Your task to perform on an android device: toggle improve location accuracy Image 0: 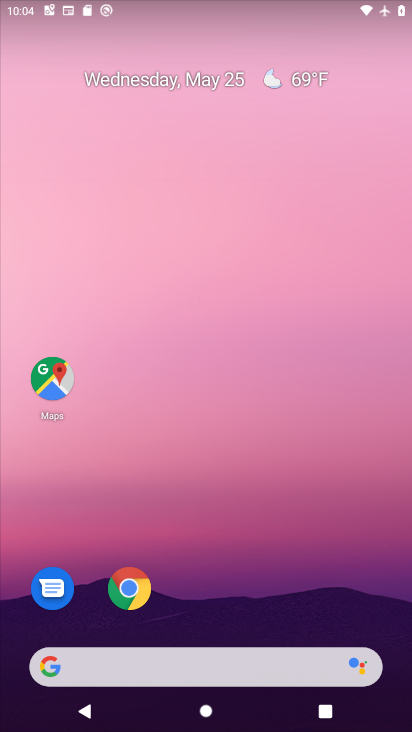
Step 0: drag from (369, 609) to (359, 241)
Your task to perform on an android device: toggle improve location accuracy Image 1: 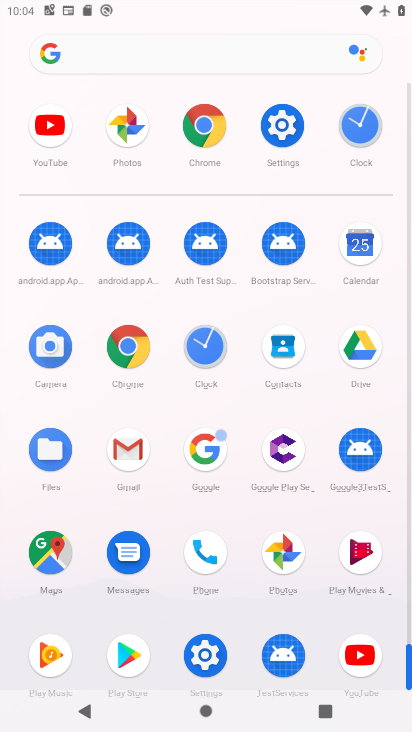
Step 1: click (206, 654)
Your task to perform on an android device: toggle improve location accuracy Image 2: 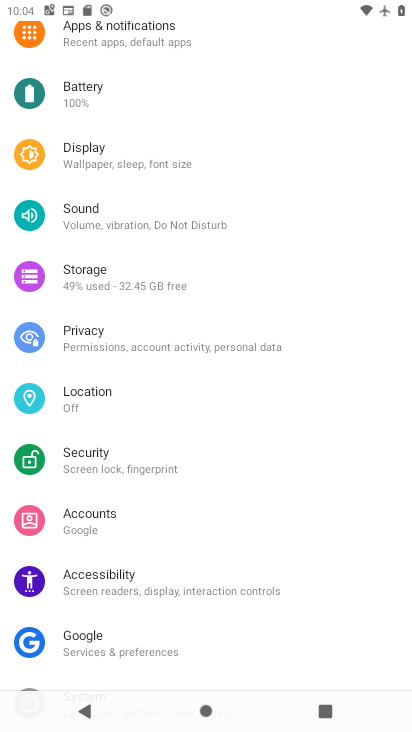
Step 2: drag from (305, 657) to (344, 553)
Your task to perform on an android device: toggle improve location accuracy Image 3: 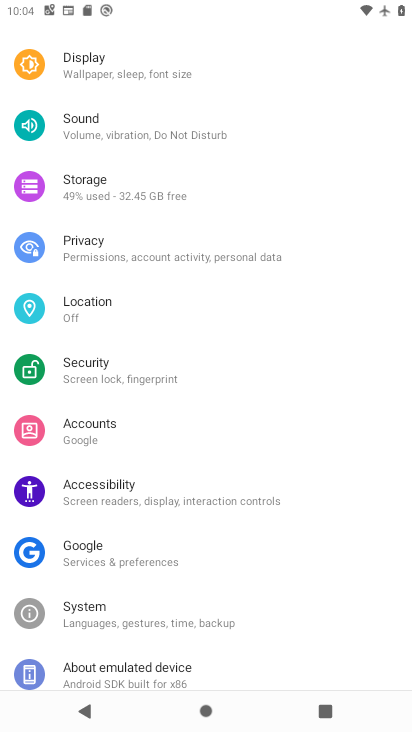
Step 3: drag from (337, 643) to (337, 514)
Your task to perform on an android device: toggle improve location accuracy Image 4: 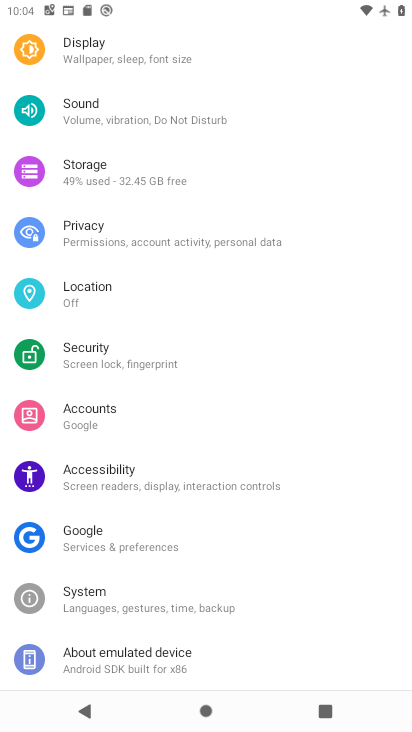
Step 4: drag from (333, 517) to (343, 476)
Your task to perform on an android device: toggle improve location accuracy Image 5: 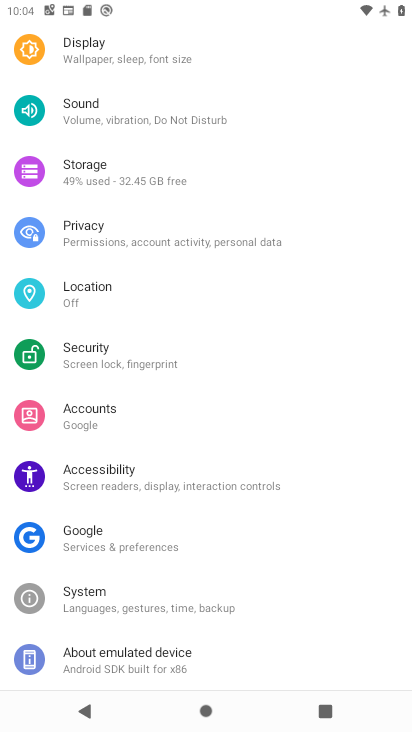
Step 5: drag from (349, 362) to (354, 454)
Your task to perform on an android device: toggle improve location accuracy Image 6: 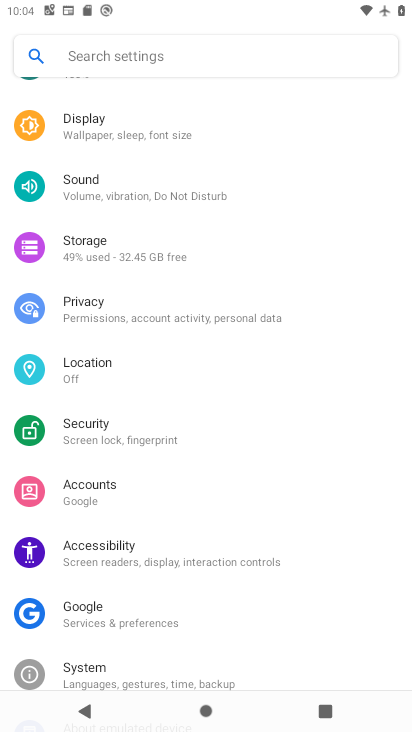
Step 6: drag from (320, 384) to (325, 495)
Your task to perform on an android device: toggle improve location accuracy Image 7: 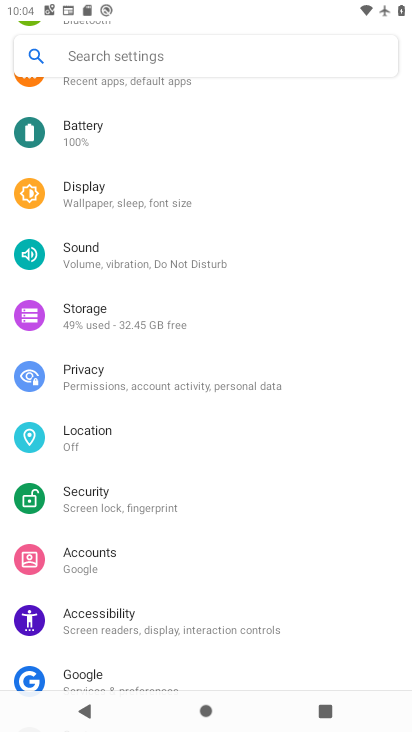
Step 7: drag from (315, 385) to (323, 531)
Your task to perform on an android device: toggle improve location accuracy Image 8: 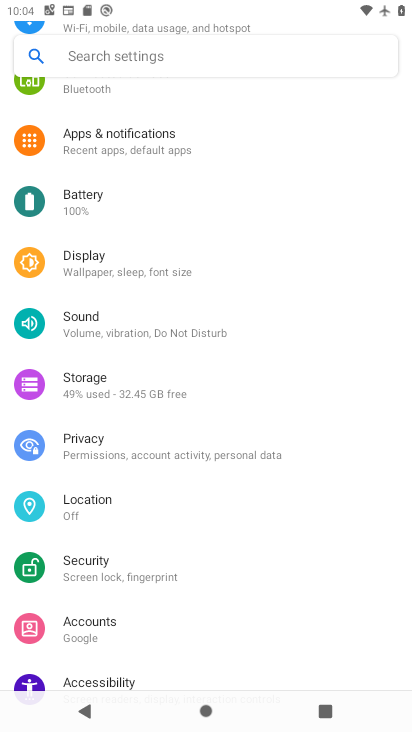
Step 8: drag from (310, 364) to (296, 530)
Your task to perform on an android device: toggle improve location accuracy Image 9: 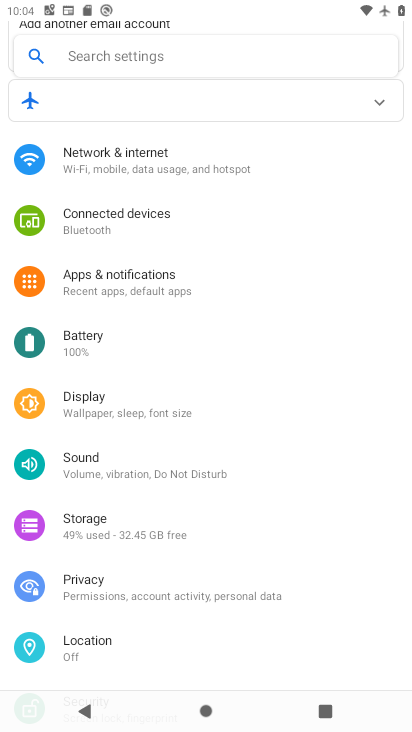
Step 9: click (190, 644)
Your task to perform on an android device: toggle improve location accuracy Image 10: 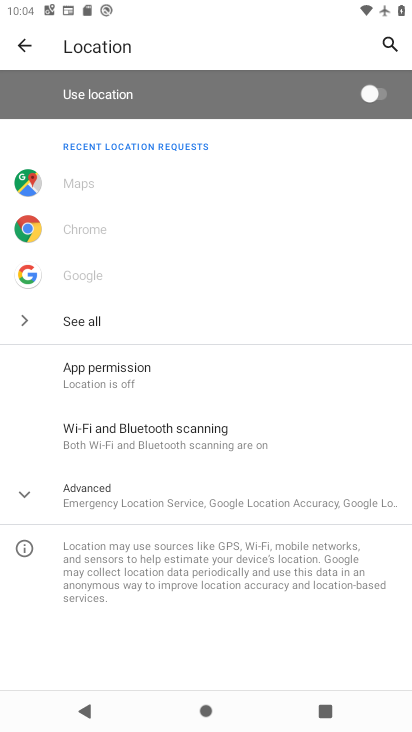
Step 10: click (239, 501)
Your task to perform on an android device: toggle improve location accuracy Image 11: 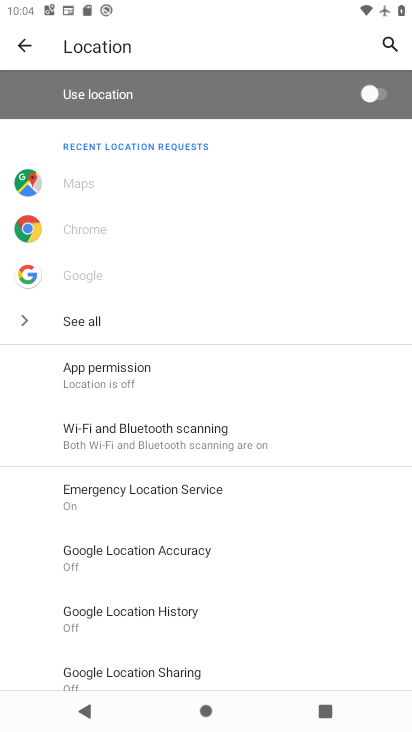
Step 11: drag from (282, 577) to (295, 443)
Your task to perform on an android device: toggle improve location accuracy Image 12: 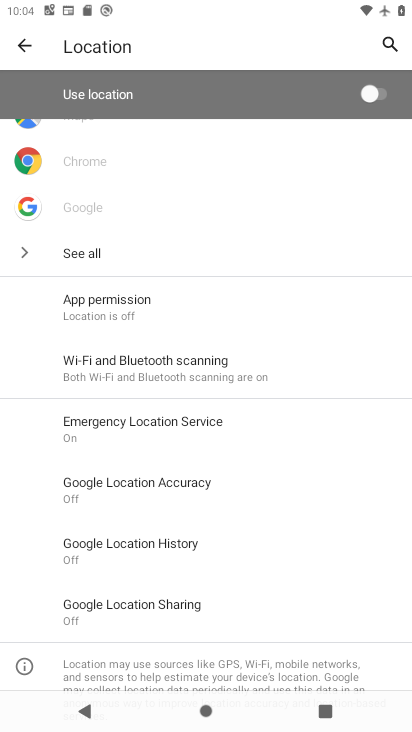
Step 12: click (178, 477)
Your task to perform on an android device: toggle improve location accuracy Image 13: 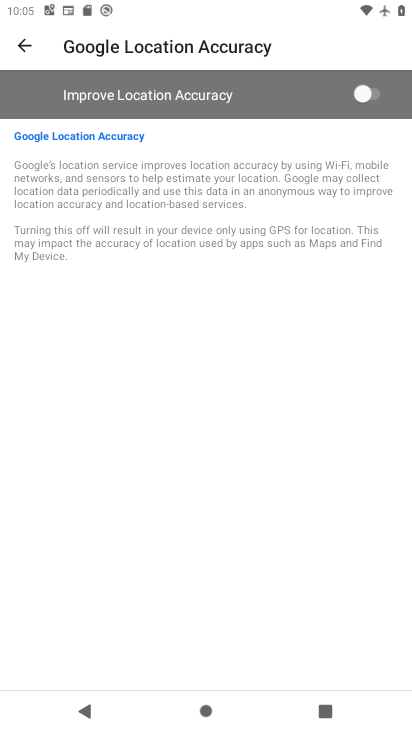
Step 13: click (364, 89)
Your task to perform on an android device: toggle improve location accuracy Image 14: 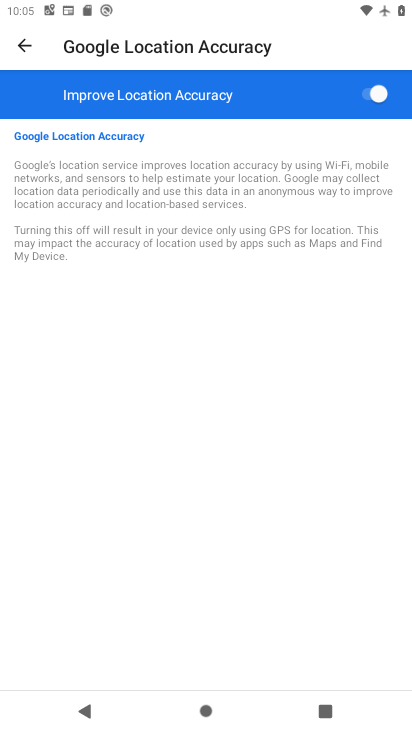
Step 14: task complete